Your task to perform on an android device: set an alarm Image 0: 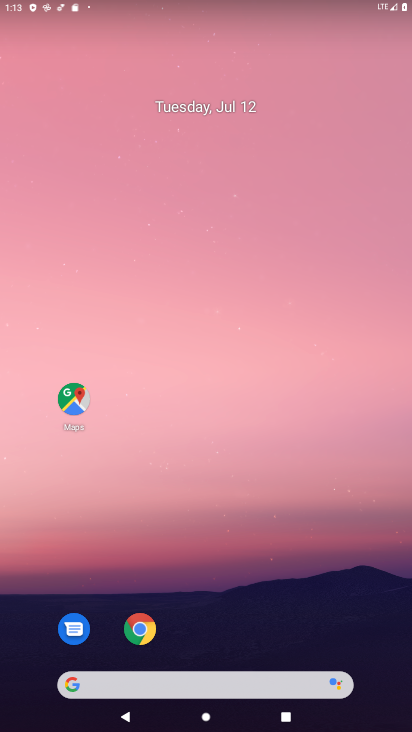
Step 0: drag from (226, 633) to (214, 20)
Your task to perform on an android device: set an alarm Image 1: 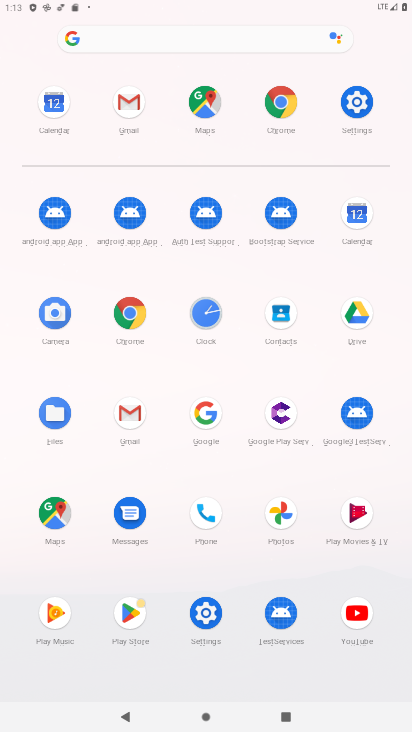
Step 1: click (211, 314)
Your task to perform on an android device: set an alarm Image 2: 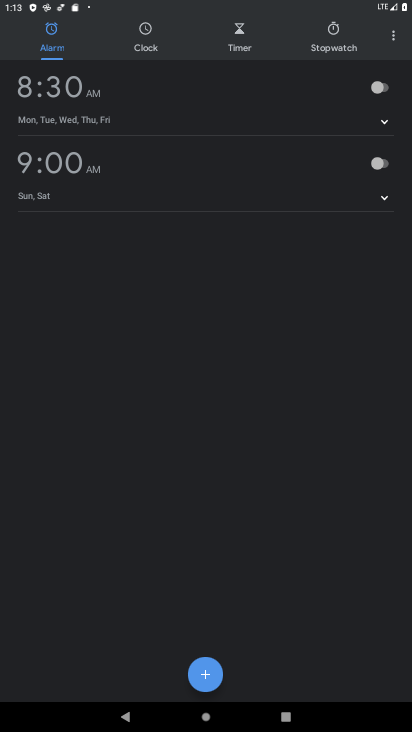
Step 2: click (389, 84)
Your task to perform on an android device: set an alarm Image 3: 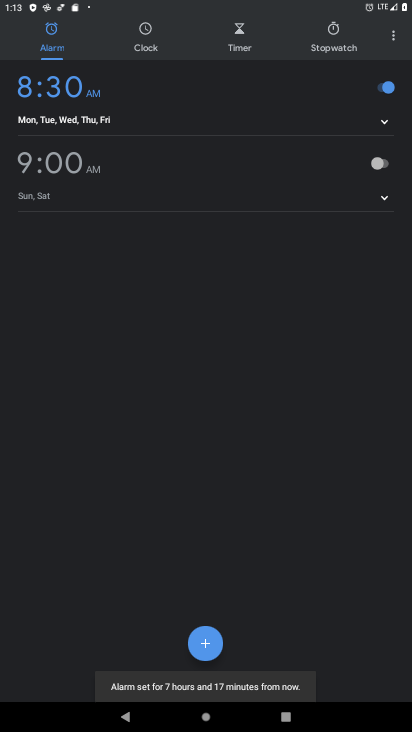
Step 3: task complete